Your task to perform on an android device: set default search engine in the chrome app Image 0: 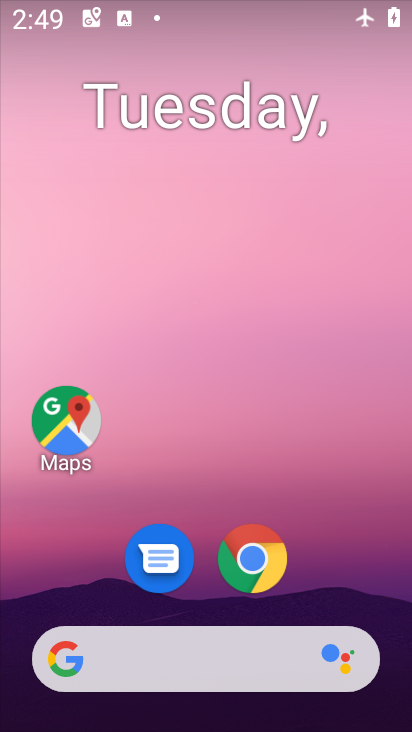
Step 0: click (264, 553)
Your task to perform on an android device: set default search engine in the chrome app Image 1: 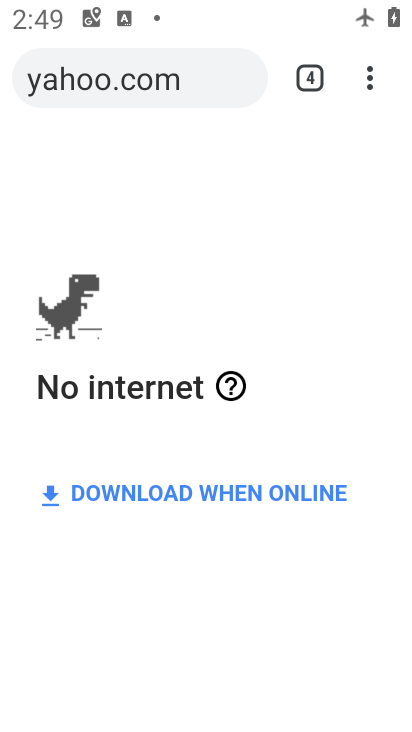
Step 1: click (371, 87)
Your task to perform on an android device: set default search engine in the chrome app Image 2: 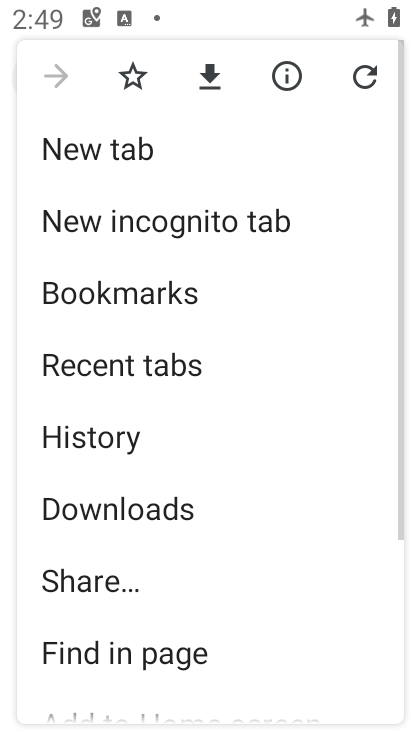
Step 2: drag from (164, 594) to (179, 266)
Your task to perform on an android device: set default search engine in the chrome app Image 3: 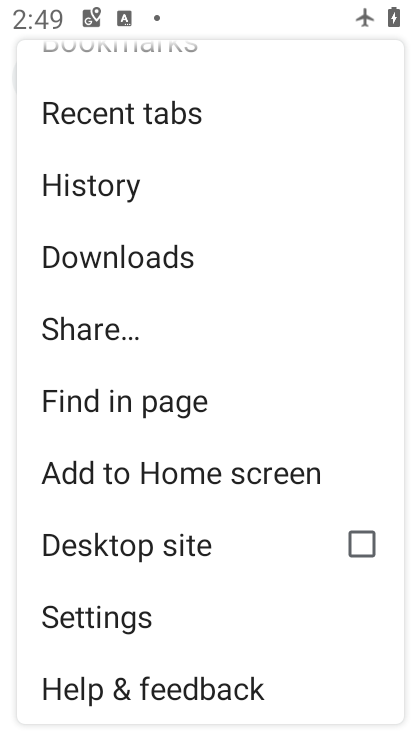
Step 3: click (134, 613)
Your task to perform on an android device: set default search engine in the chrome app Image 4: 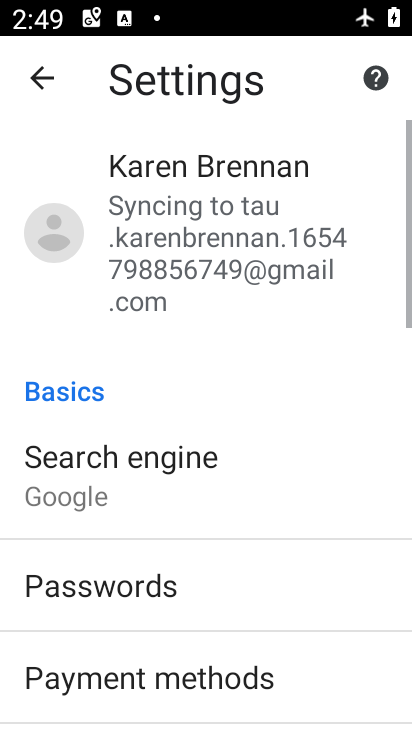
Step 4: click (146, 491)
Your task to perform on an android device: set default search engine in the chrome app Image 5: 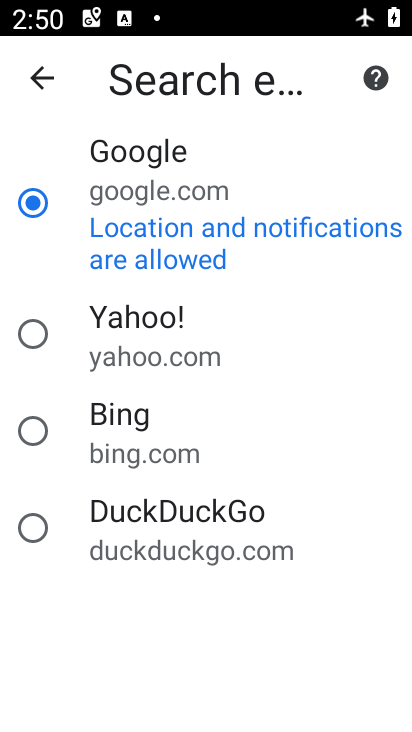
Step 5: task complete